Your task to perform on an android device: Check the news Image 0: 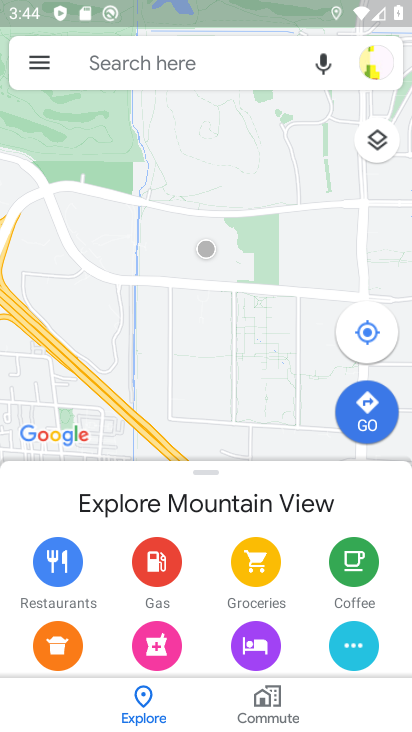
Step 0: press home button
Your task to perform on an android device: Check the news Image 1: 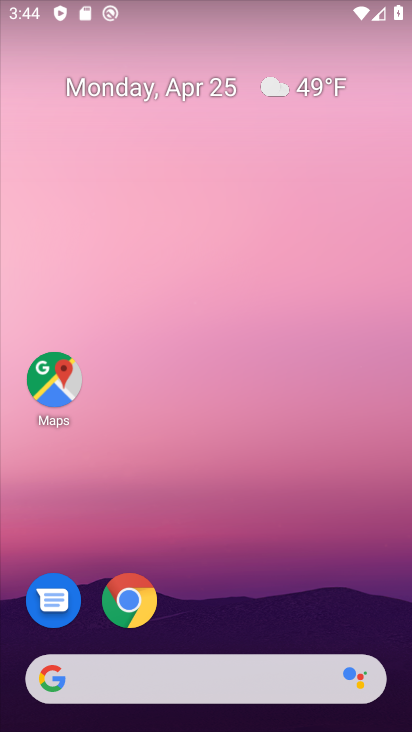
Step 1: click (48, 670)
Your task to perform on an android device: Check the news Image 2: 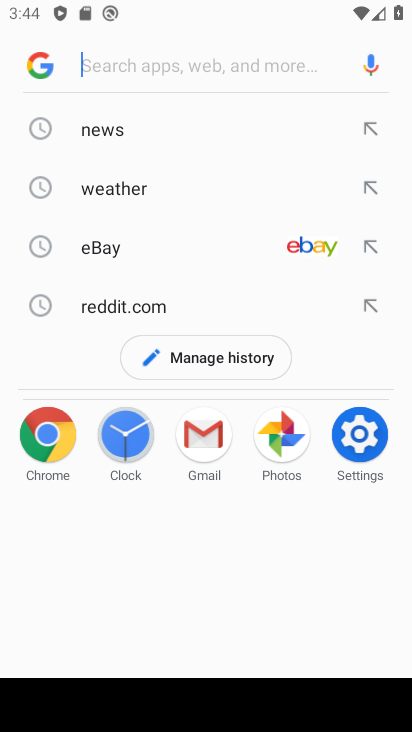
Step 2: click (112, 129)
Your task to perform on an android device: Check the news Image 3: 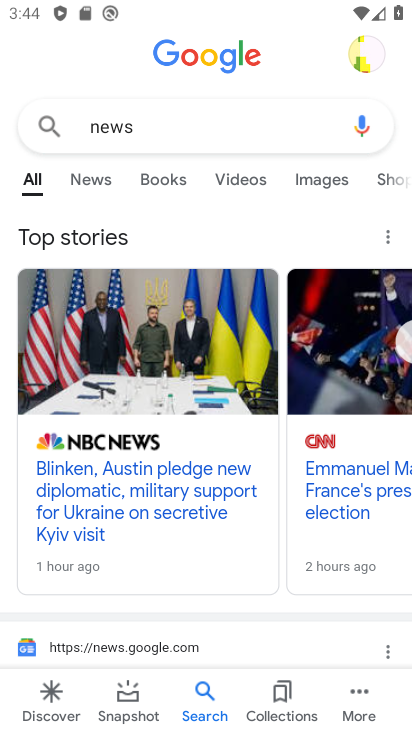
Step 3: task complete